Your task to perform on an android device: open app "Gmail" (install if not already installed) Image 0: 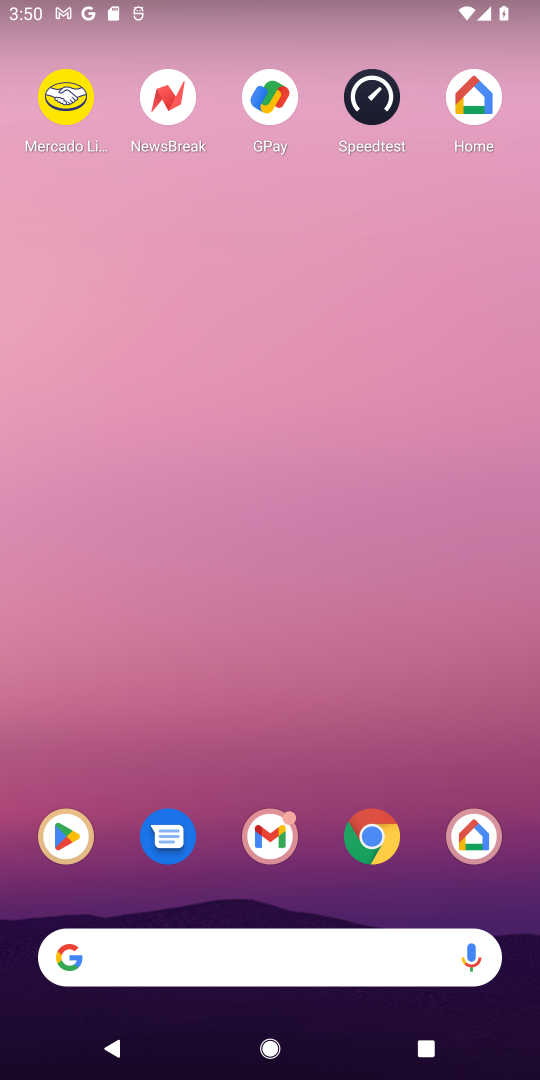
Step 0: press home button
Your task to perform on an android device: open app "Gmail" (install if not already installed) Image 1: 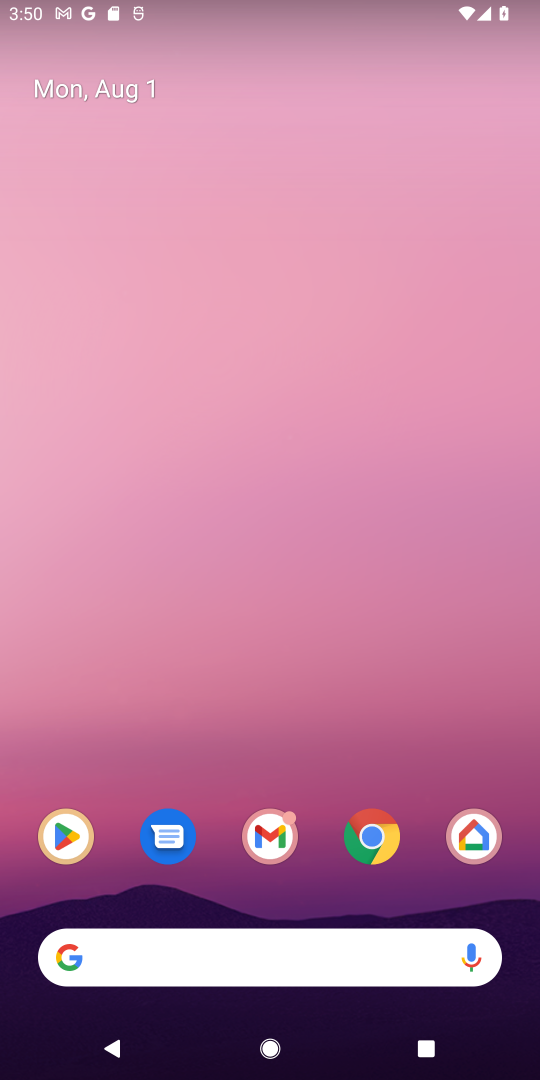
Step 1: click (281, 840)
Your task to perform on an android device: open app "Gmail" (install if not already installed) Image 2: 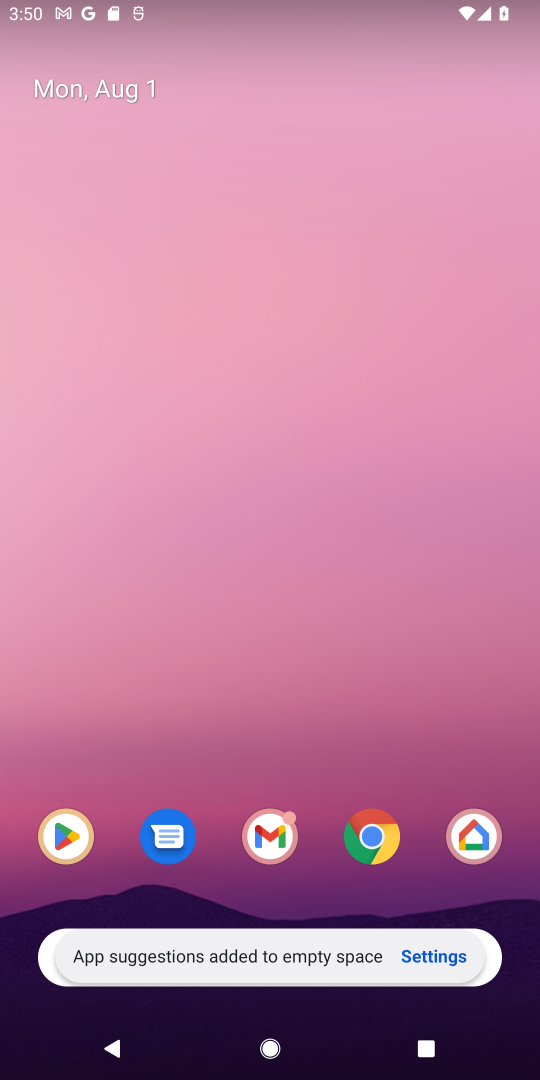
Step 2: click (281, 837)
Your task to perform on an android device: open app "Gmail" (install if not already installed) Image 3: 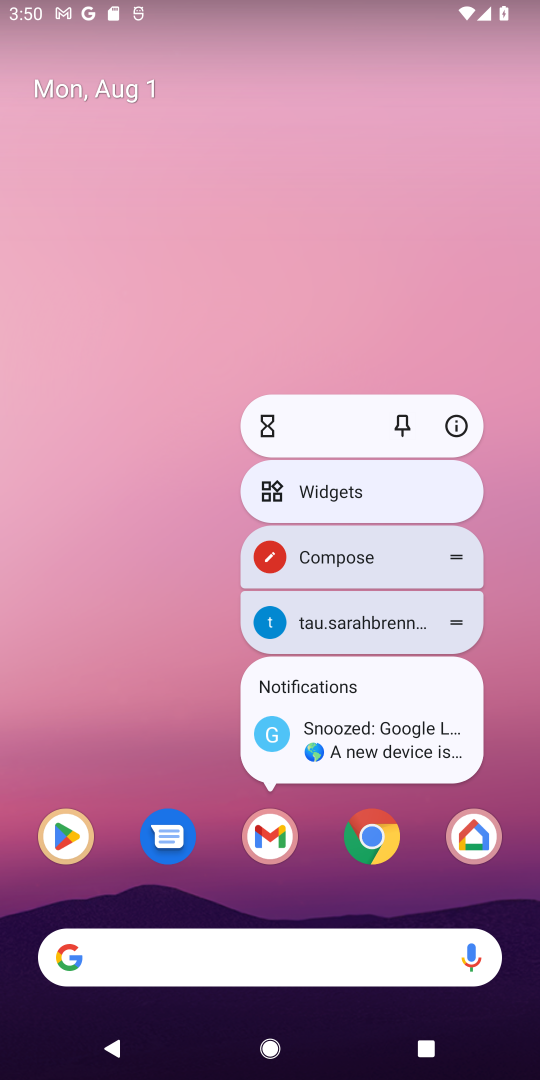
Step 3: click (234, 897)
Your task to perform on an android device: open app "Gmail" (install if not already installed) Image 4: 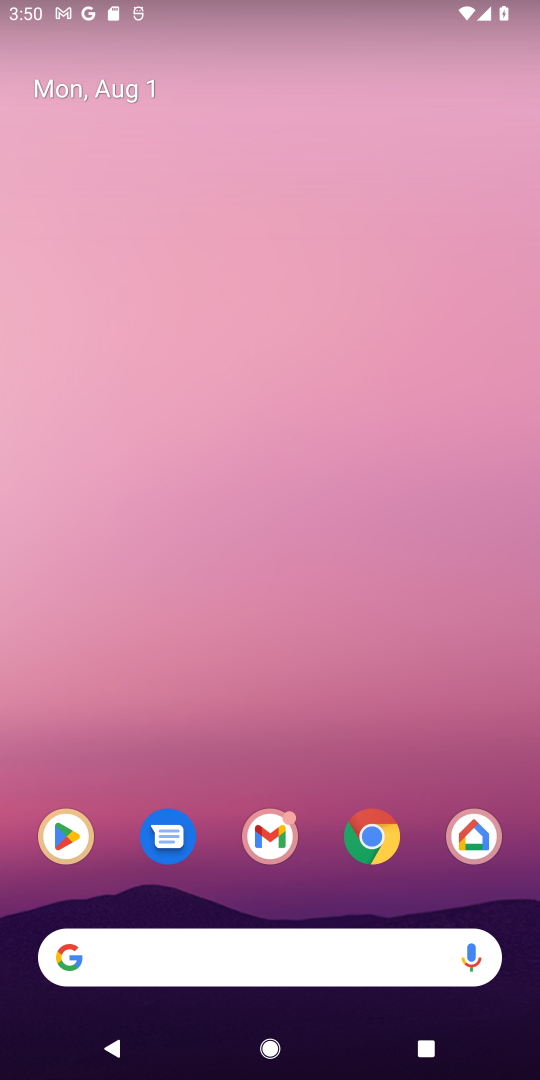
Step 4: drag from (191, 719) to (185, 339)
Your task to perform on an android device: open app "Gmail" (install if not already installed) Image 5: 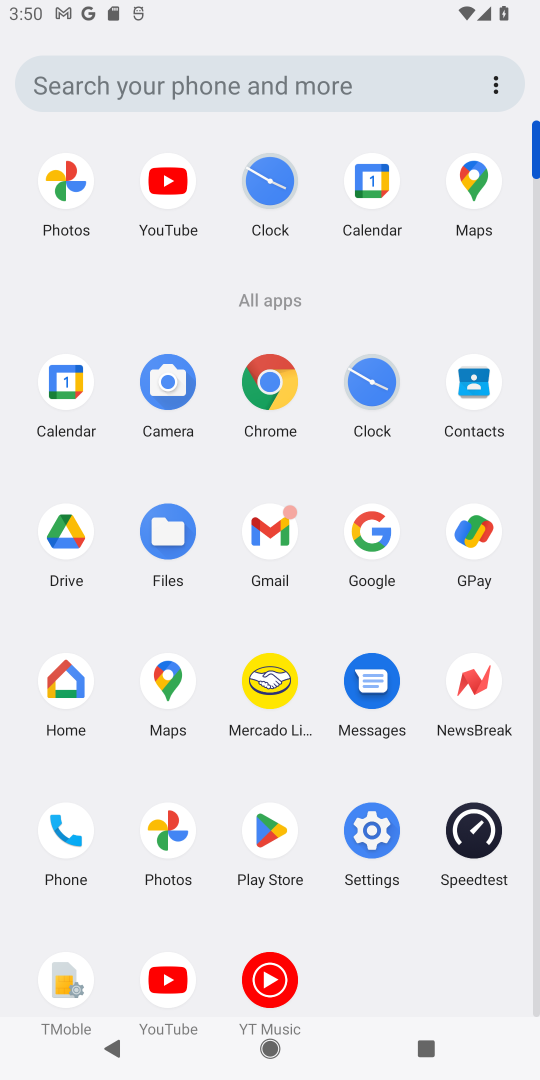
Step 5: click (262, 549)
Your task to perform on an android device: open app "Gmail" (install if not already installed) Image 6: 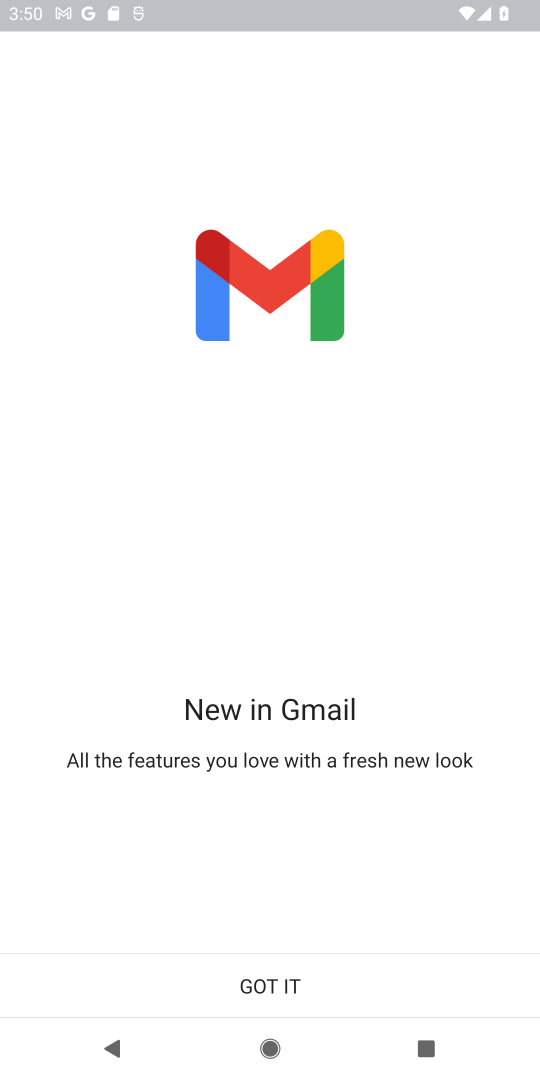
Step 6: click (251, 982)
Your task to perform on an android device: open app "Gmail" (install if not already installed) Image 7: 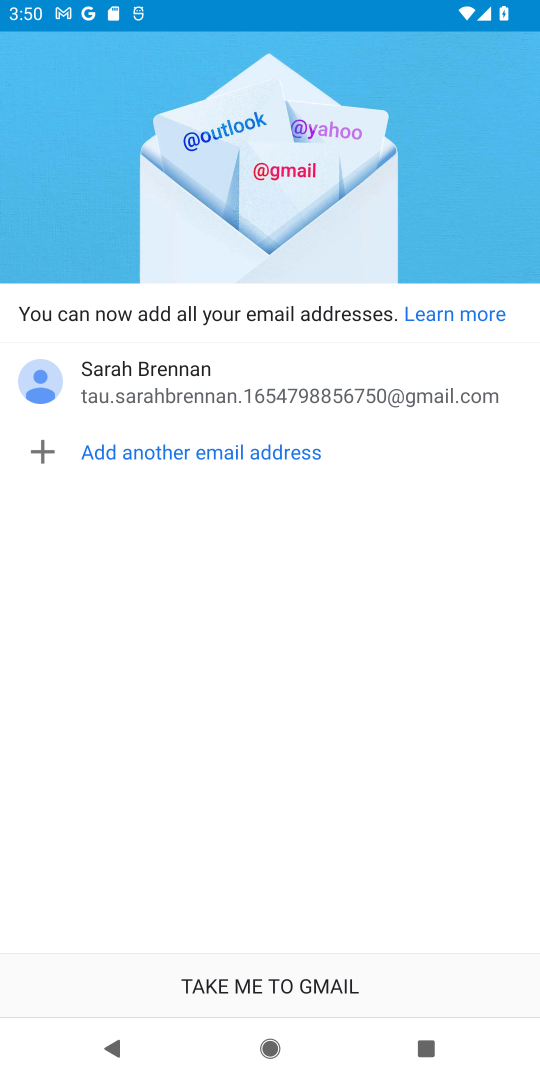
Step 7: click (251, 982)
Your task to perform on an android device: open app "Gmail" (install if not already installed) Image 8: 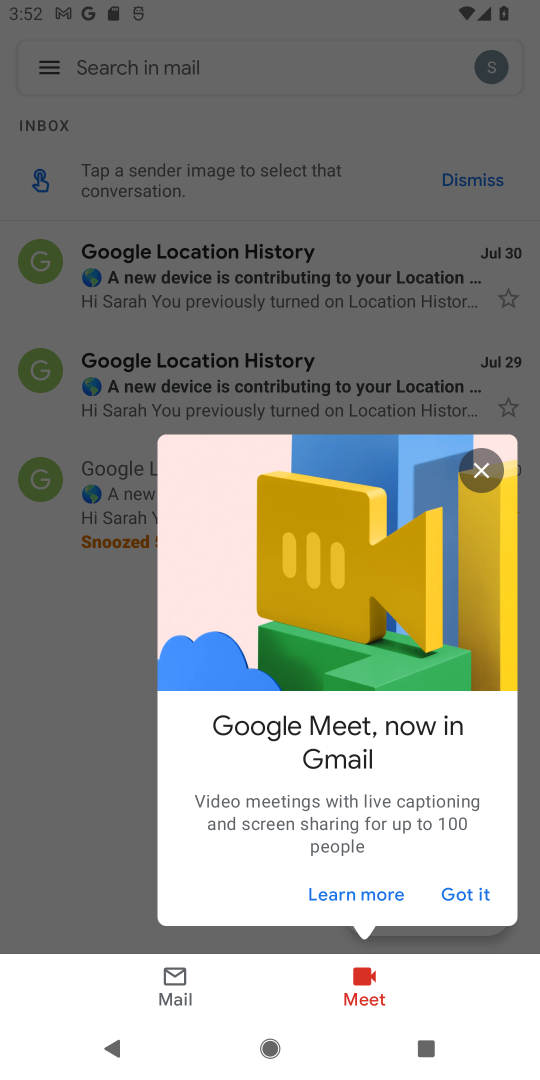
Step 8: click (493, 469)
Your task to perform on an android device: open app "Gmail" (install if not already installed) Image 9: 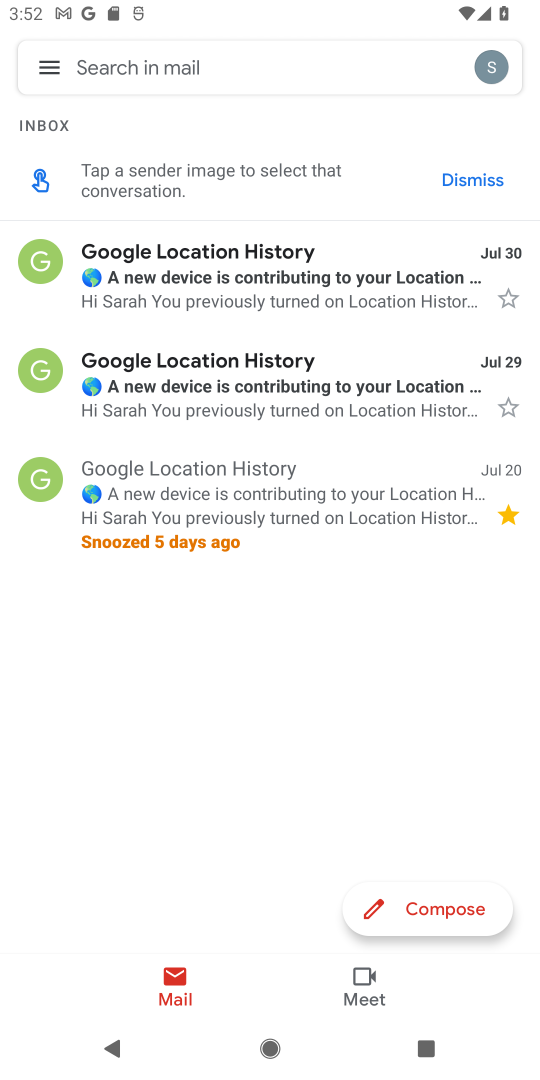
Step 9: task complete